Your task to perform on an android device: turn pop-ups on in chrome Image 0: 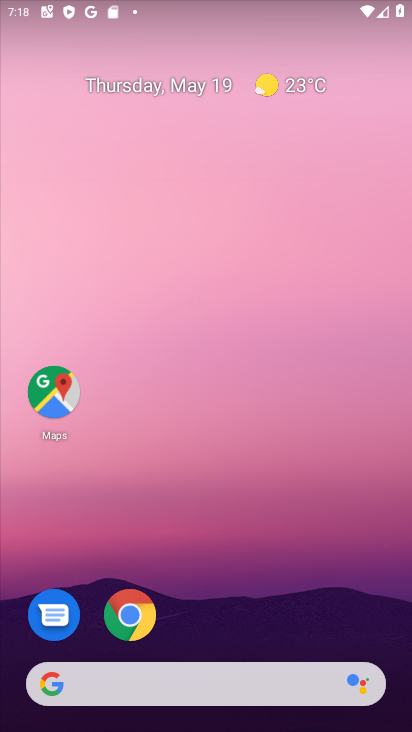
Step 0: drag from (402, 626) to (309, 10)
Your task to perform on an android device: turn pop-ups on in chrome Image 1: 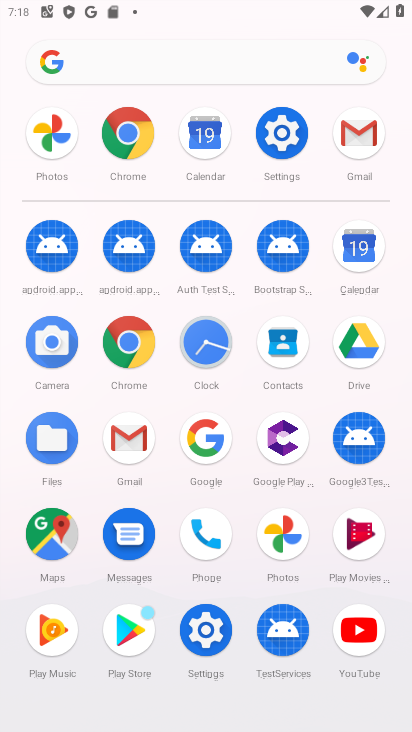
Step 1: click (131, 129)
Your task to perform on an android device: turn pop-ups on in chrome Image 2: 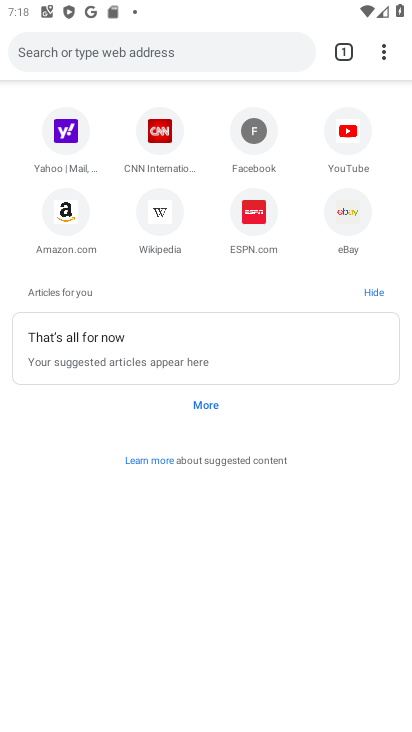
Step 2: click (385, 55)
Your task to perform on an android device: turn pop-ups on in chrome Image 3: 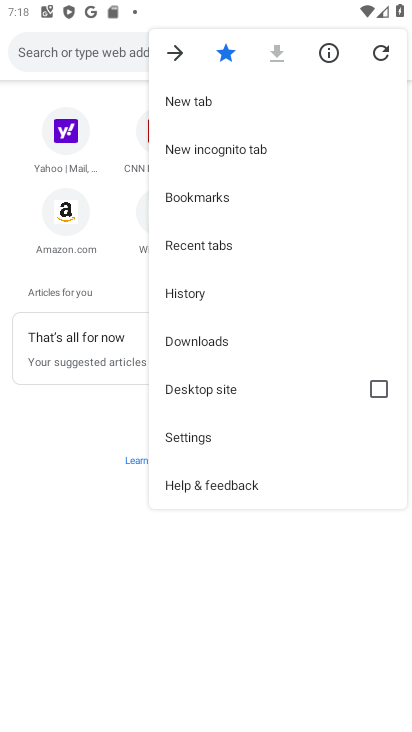
Step 3: click (205, 437)
Your task to perform on an android device: turn pop-ups on in chrome Image 4: 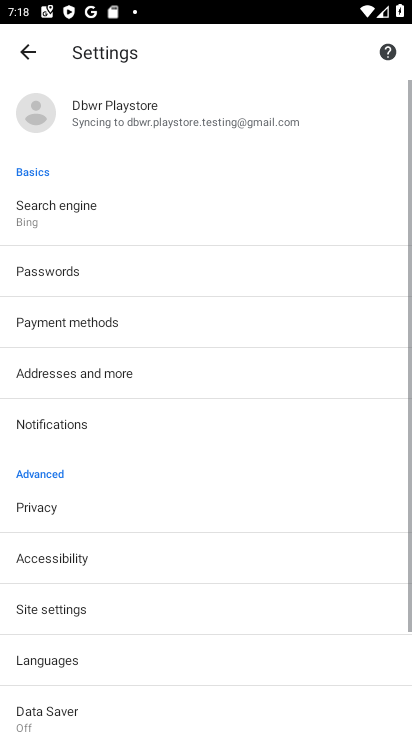
Step 4: click (81, 613)
Your task to perform on an android device: turn pop-ups on in chrome Image 5: 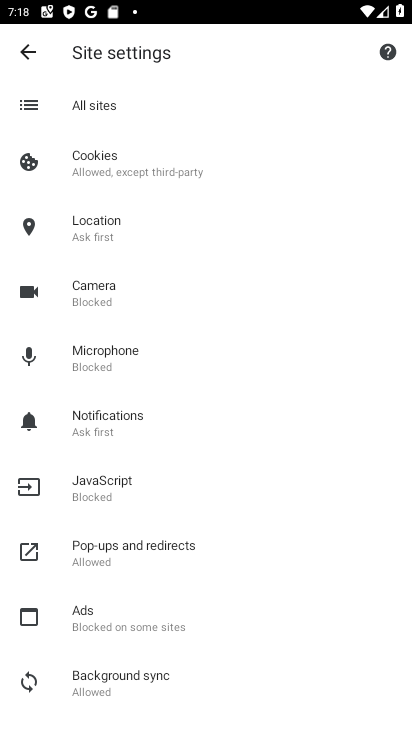
Step 5: click (169, 561)
Your task to perform on an android device: turn pop-ups on in chrome Image 6: 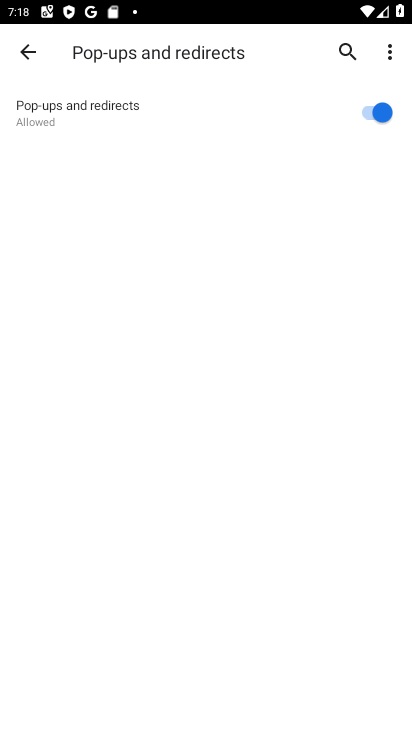
Step 6: task complete